Your task to perform on an android device: open chrome and create a bookmark for the current page Image 0: 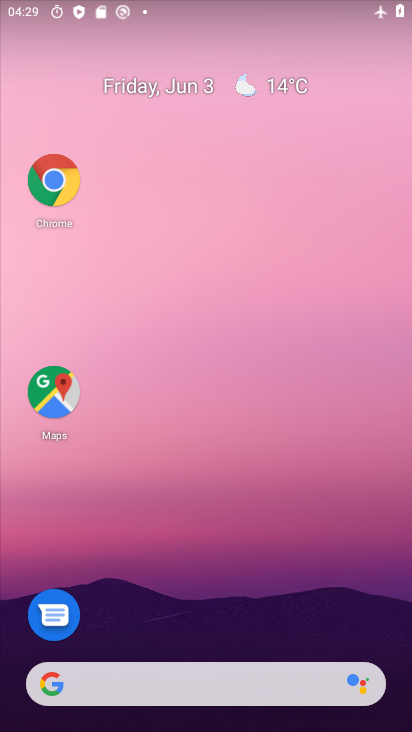
Step 0: click (62, 174)
Your task to perform on an android device: open chrome and create a bookmark for the current page Image 1: 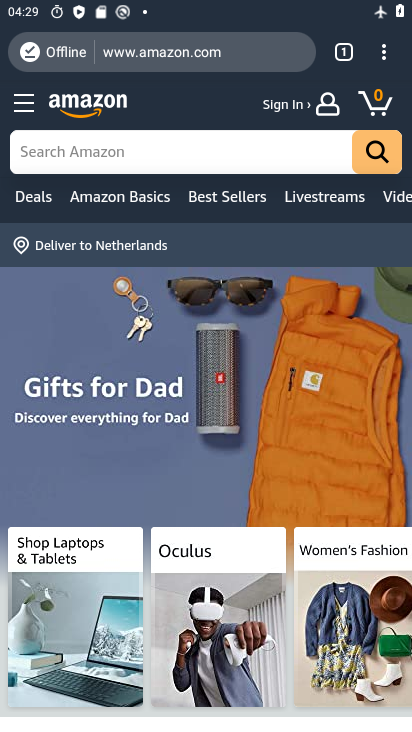
Step 1: click (385, 56)
Your task to perform on an android device: open chrome and create a bookmark for the current page Image 2: 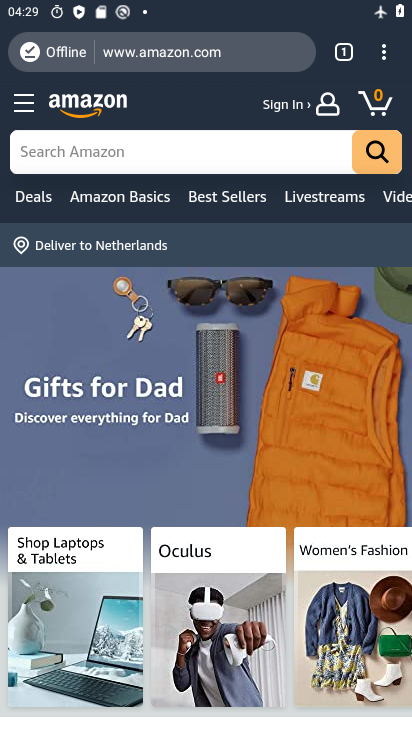
Step 2: click (384, 56)
Your task to perform on an android device: open chrome and create a bookmark for the current page Image 3: 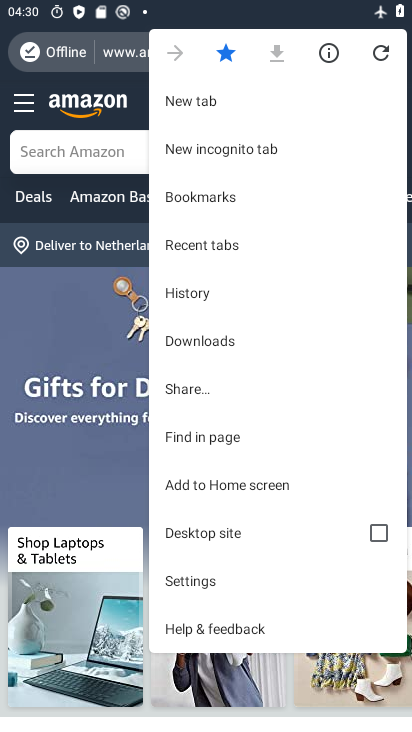
Step 3: task complete